Your task to perform on an android device: visit the assistant section in the google photos Image 0: 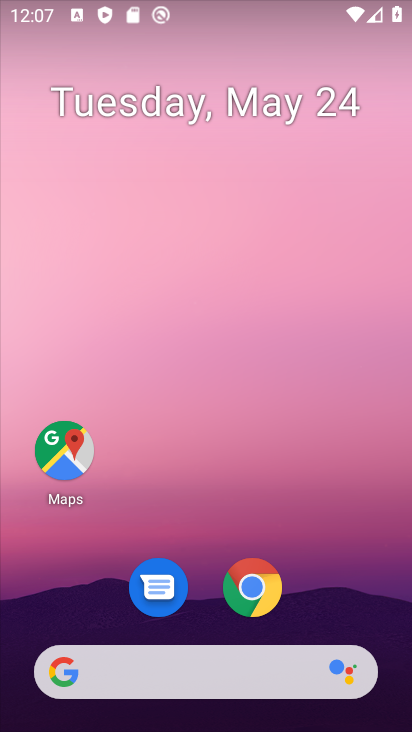
Step 0: drag from (256, 635) to (394, 0)
Your task to perform on an android device: visit the assistant section in the google photos Image 1: 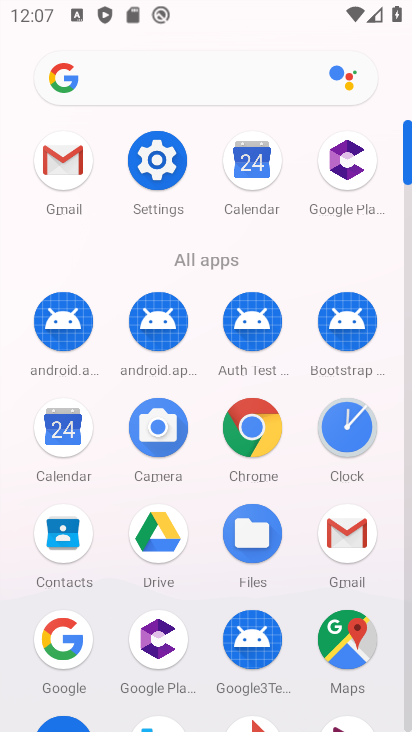
Step 1: drag from (307, 621) to (334, 237)
Your task to perform on an android device: visit the assistant section in the google photos Image 2: 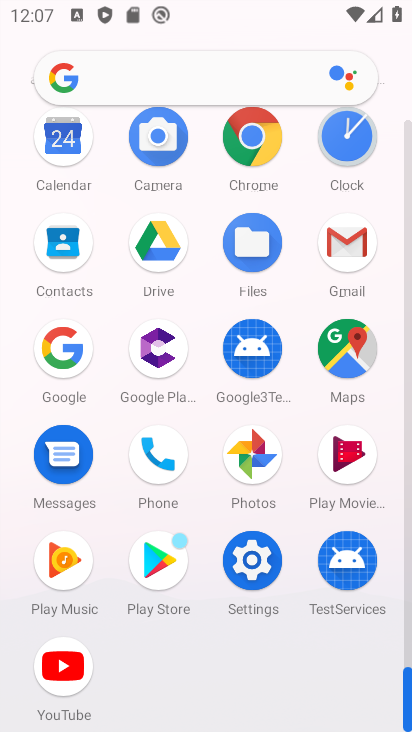
Step 2: click (250, 460)
Your task to perform on an android device: visit the assistant section in the google photos Image 3: 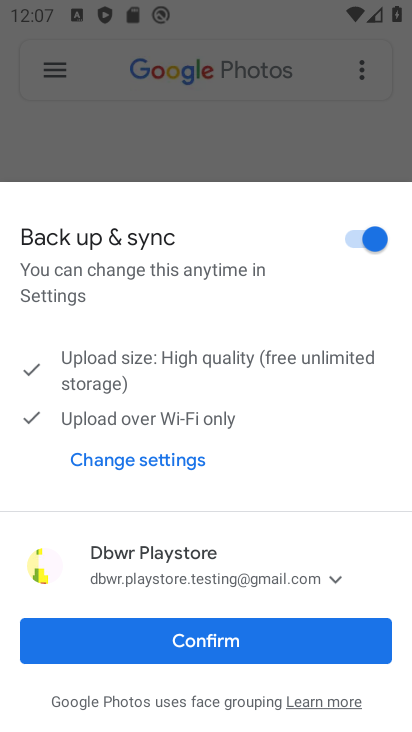
Step 3: click (268, 662)
Your task to perform on an android device: visit the assistant section in the google photos Image 4: 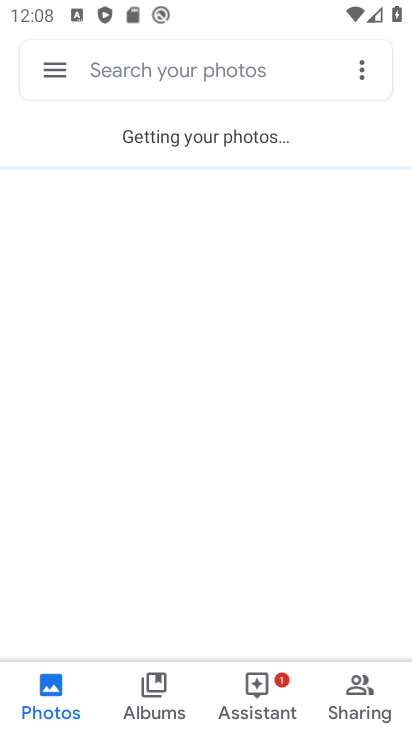
Step 4: click (253, 693)
Your task to perform on an android device: visit the assistant section in the google photos Image 5: 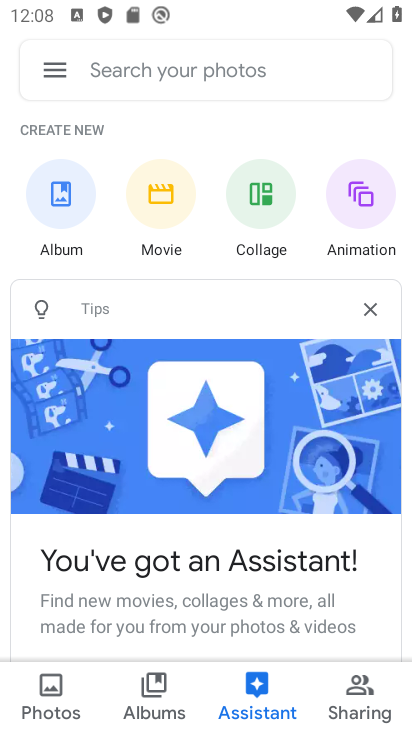
Step 5: task complete